Your task to perform on an android device: delete a single message in the gmail app Image 0: 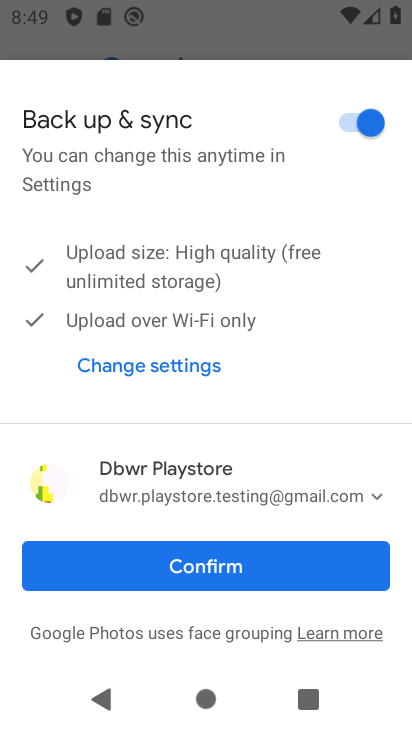
Step 0: press home button
Your task to perform on an android device: delete a single message in the gmail app Image 1: 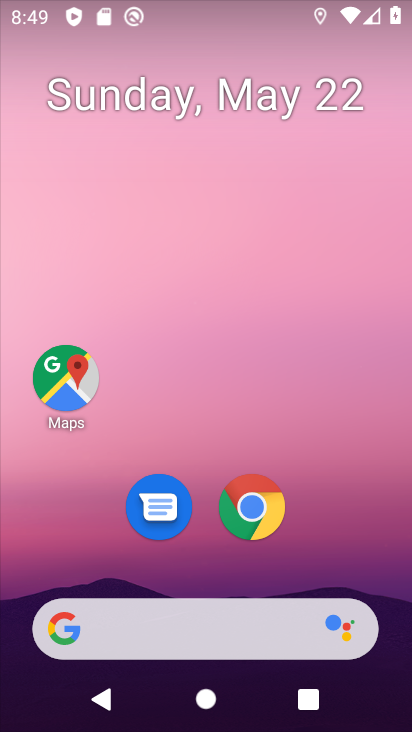
Step 1: drag from (238, 594) to (123, 165)
Your task to perform on an android device: delete a single message in the gmail app Image 2: 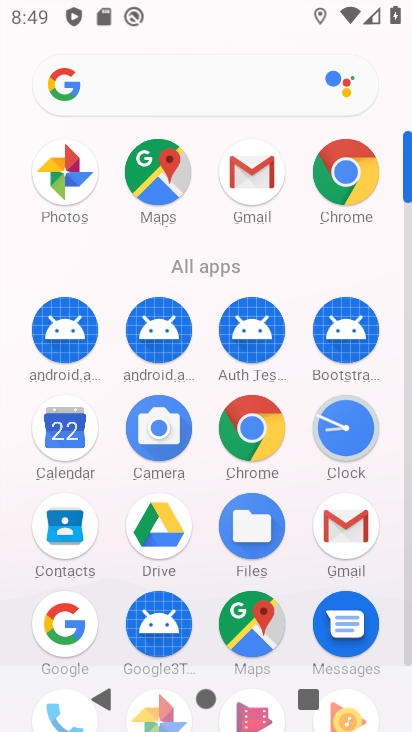
Step 2: click (344, 541)
Your task to perform on an android device: delete a single message in the gmail app Image 3: 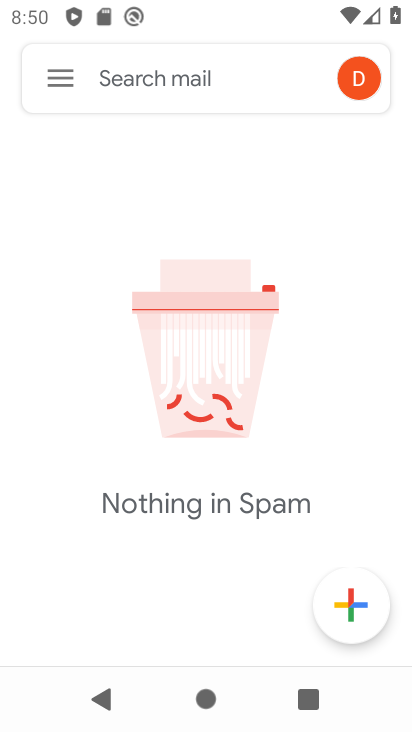
Step 3: click (43, 79)
Your task to perform on an android device: delete a single message in the gmail app Image 4: 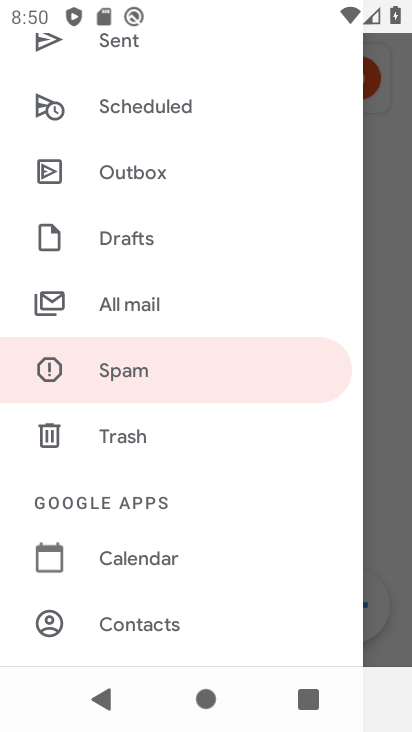
Step 4: task complete